Your task to perform on an android device: turn on javascript in the chrome app Image 0: 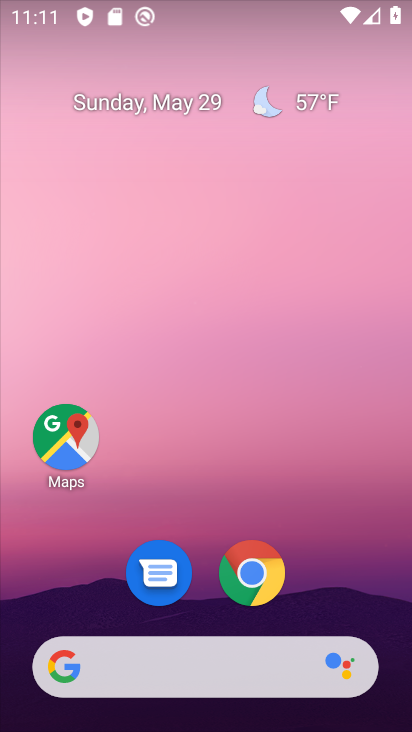
Step 0: drag from (269, 677) to (405, 580)
Your task to perform on an android device: turn on javascript in the chrome app Image 1: 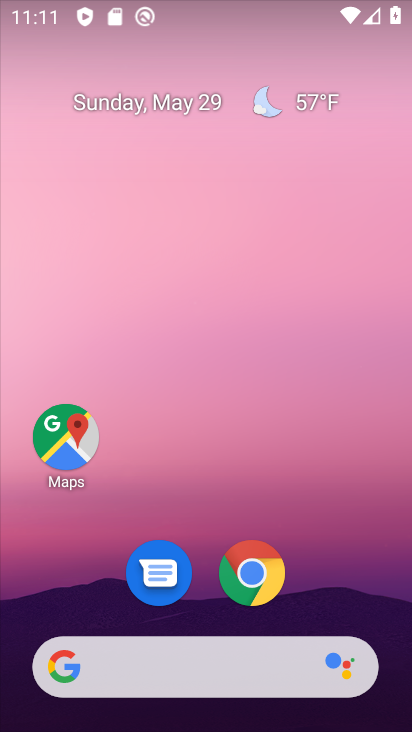
Step 1: drag from (283, 668) to (299, 121)
Your task to perform on an android device: turn on javascript in the chrome app Image 2: 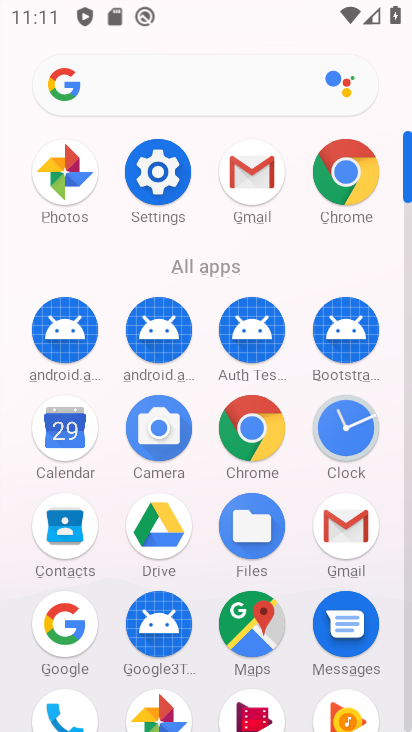
Step 2: click (252, 437)
Your task to perform on an android device: turn on javascript in the chrome app Image 3: 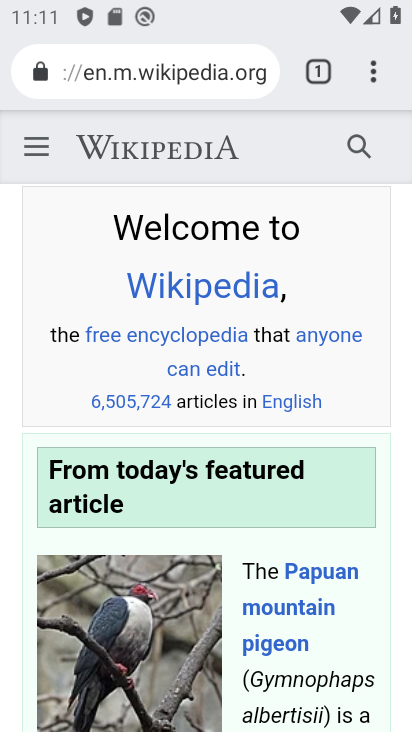
Step 3: drag from (367, 76) to (161, 574)
Your task to perform on an android device: turn on javascript in the chrome app Image 4: 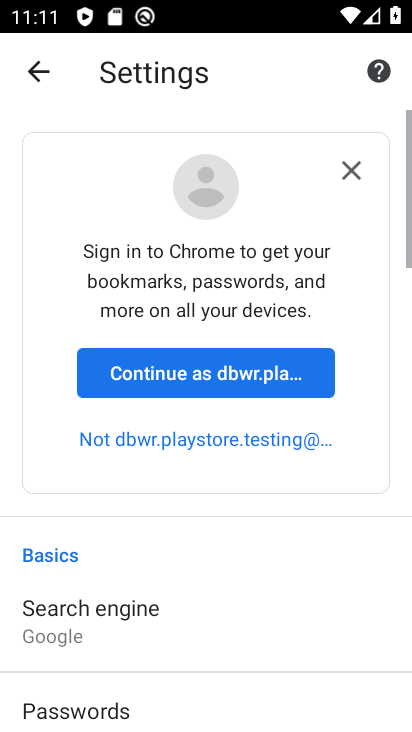
Step 4: drag from (256, 650) to (256, 22)
Your task to perform on an android device: turn on javascript in the chrome app Image 5: 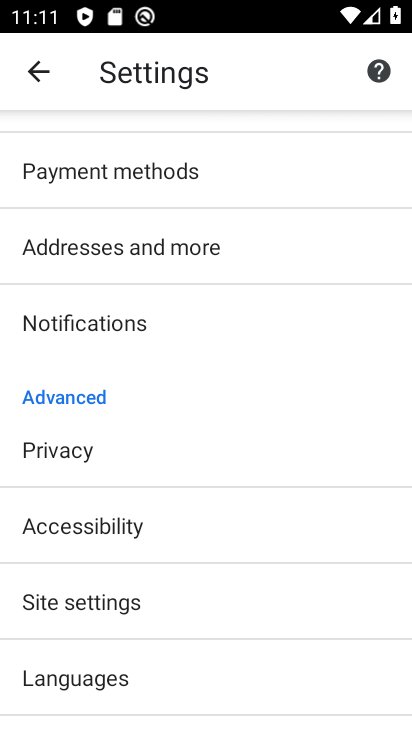
Step 5: click (130, 622)
Your task to perform on an android device: turn on javascript in the chrome app Image 6: 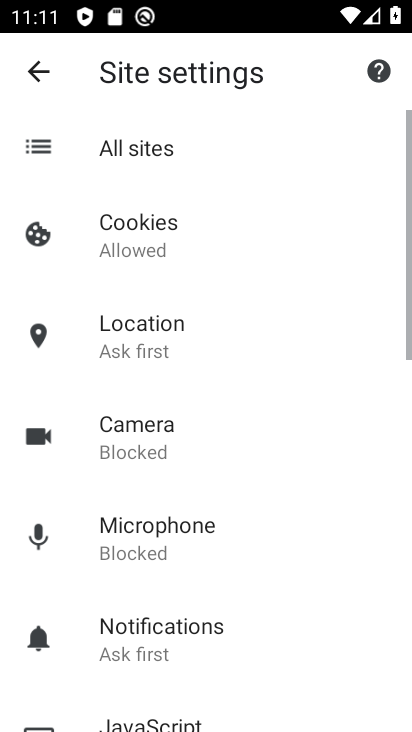
Step 6: drag from (191, 631) to (238, 129)
Your task to perform on an android device: turn on javascript in the chrome app Image 7: 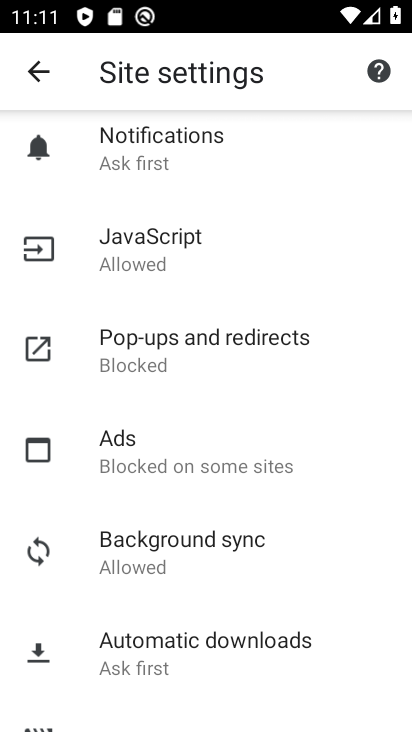
Step 7: click (194, 232)
Your task to perform on an android device: turn on javascript in the chrome app Image 8: 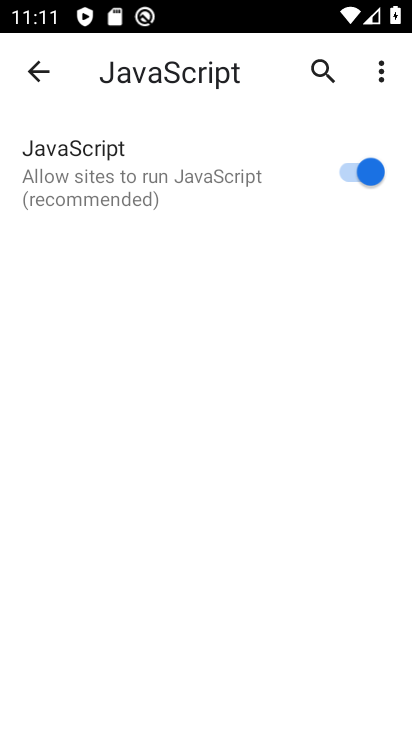
Step 8: task complete